Your task to perform on an android device: turn on translation in the chrome app Image 0: 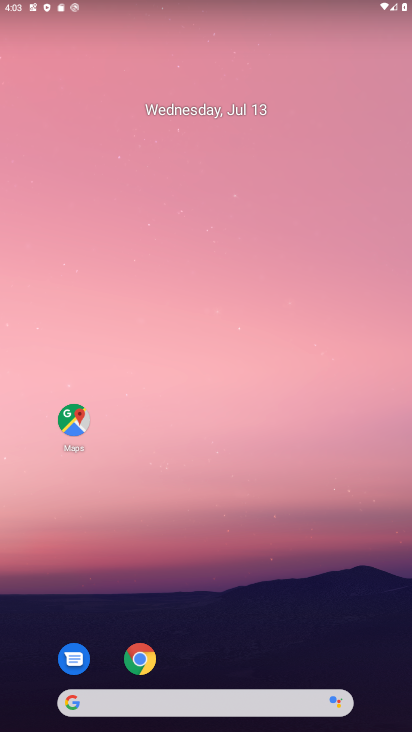
Step 0: press home button
Your task to perform on an android device: turn on translation in the chrome app Image 1: 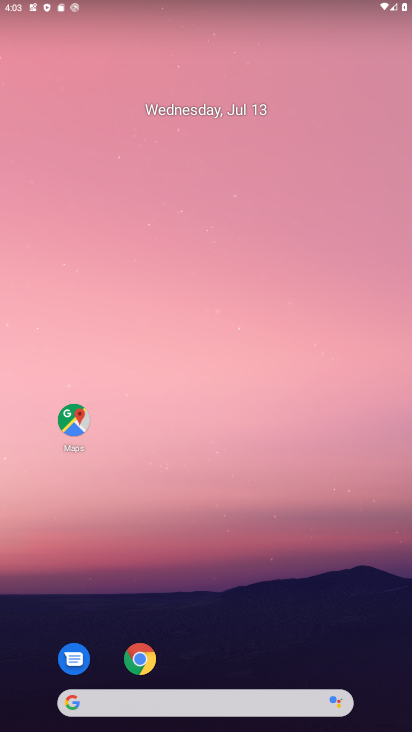
Step 1: click (139, 653)
Your task to perform on an android device: turn on translation in the chrome app Image 2: 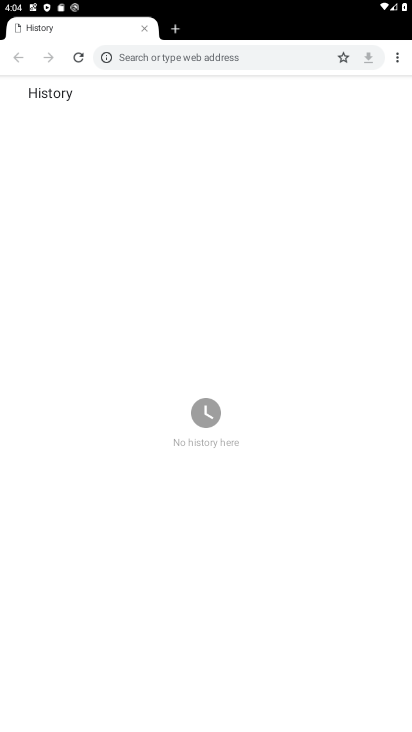
Step 2: click (176, 26)
Your task to perform on an android device: turn on translation in the chrome app Image 3: 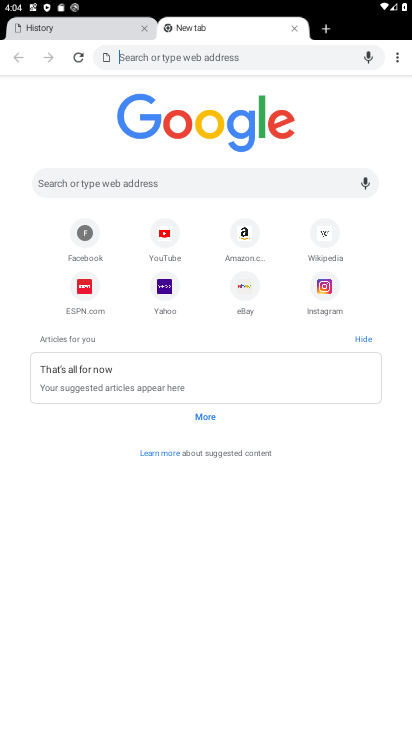
Step 3: click (396, 58)
Your task to perform on an android device: turn on translation in the chrome app Image 4: 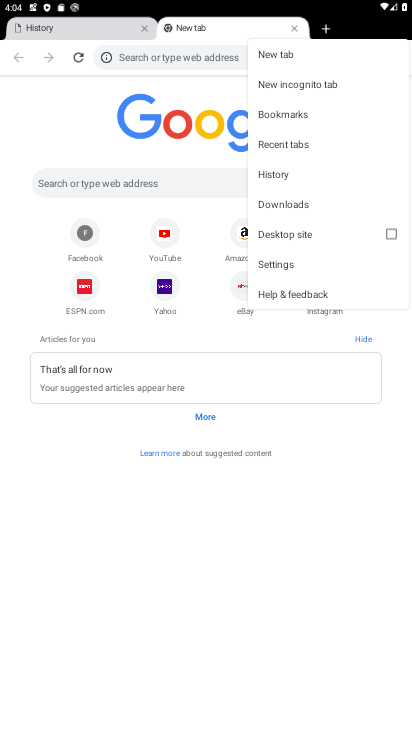
Step 4: click (287, 263)
Your task to perform on an android device: turn on translation in the chrome app Image 5: 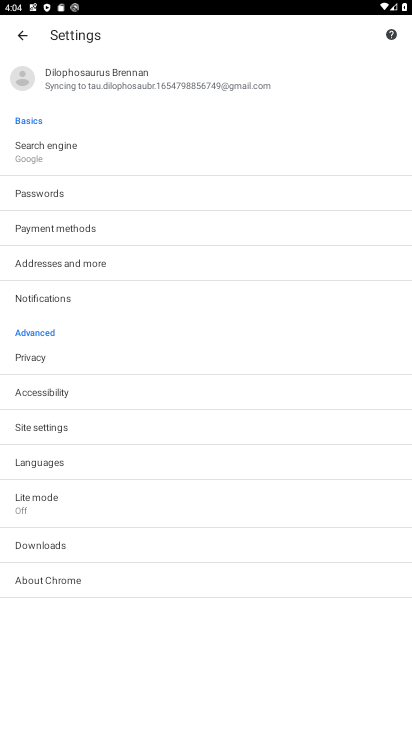
Step 5: click (77, 460)
Your task to perform on an android device: turn on translation in the chrome app Image 6: 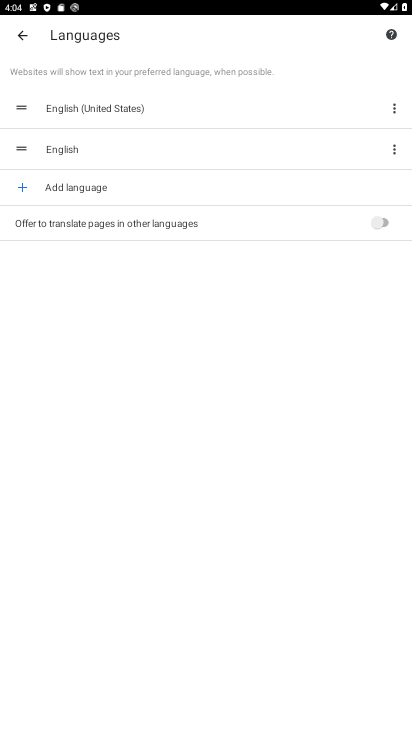
Step 6: click (380, 218)
Your task to perform on an android device: turn on translation in the chrome app Image 7: 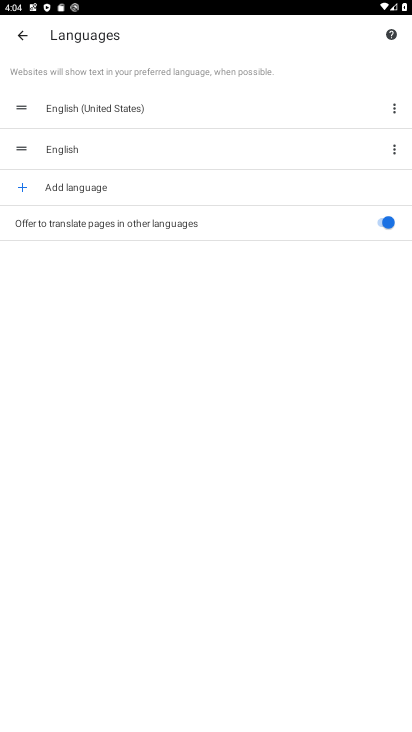
Step 7: task complete